Your task to perform on an android device: toggle translation in the chrome app Image 0: 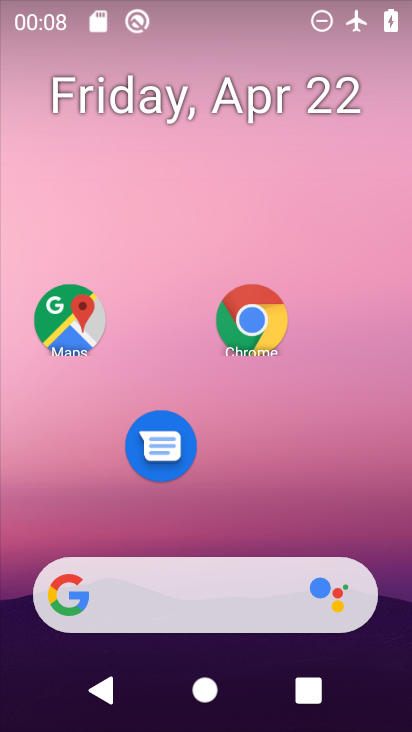
Step 0: drag from (217, 436) to (198, 182)
Your task to perform on an android device: toggle translation in the chrome app Image 1: 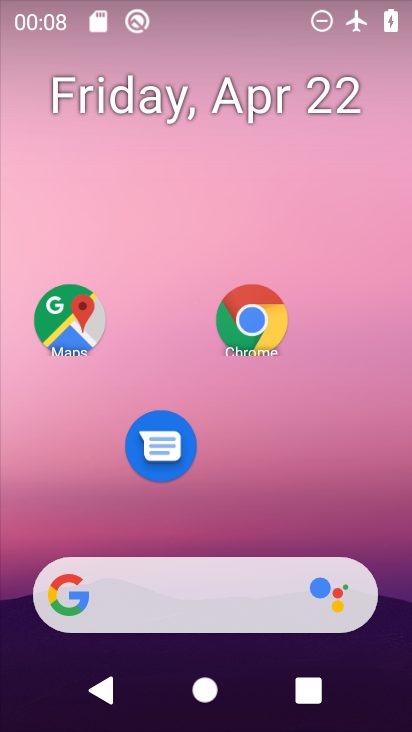
Step 1: drag from (213, 493) to (210, 153)
Your task to perform on an android device: toggle translation in the chrome app Image 2: 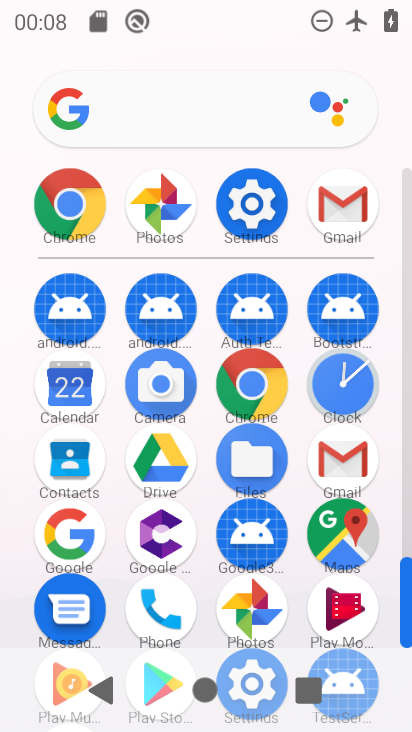
Step 2: drag from (202, 633) to (194, 354)
Your task to perform on an android device: toggle translation in the chrome app Image 3: 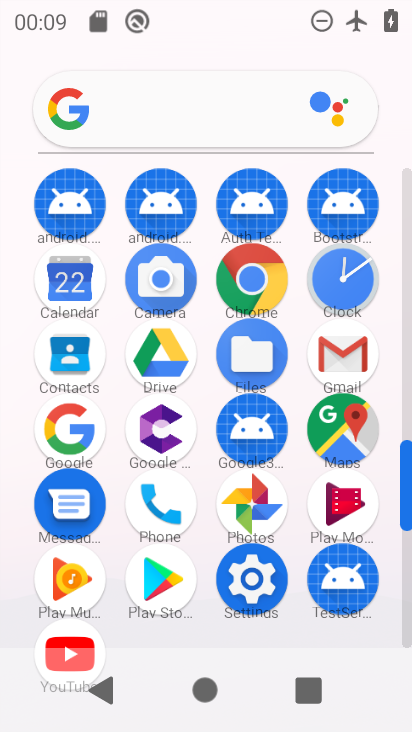
Step 3: click (243, 282)
Your task to perform on an android device: toggle translation in the chrome app Image 4: 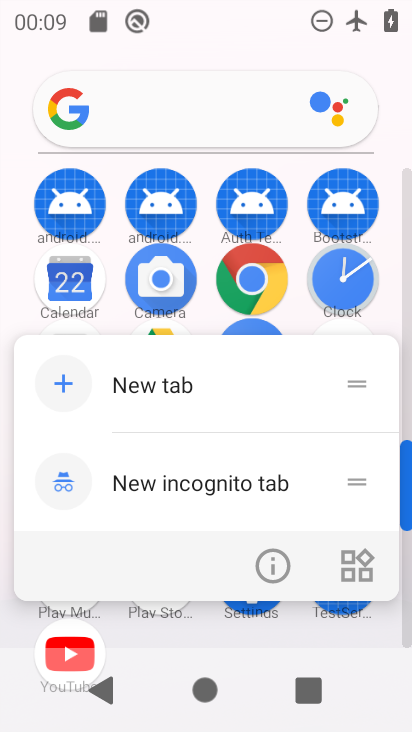
Step 4: click (276, 563)
Your task to perform on an android device: toggle translation in the chrome app Image 5: 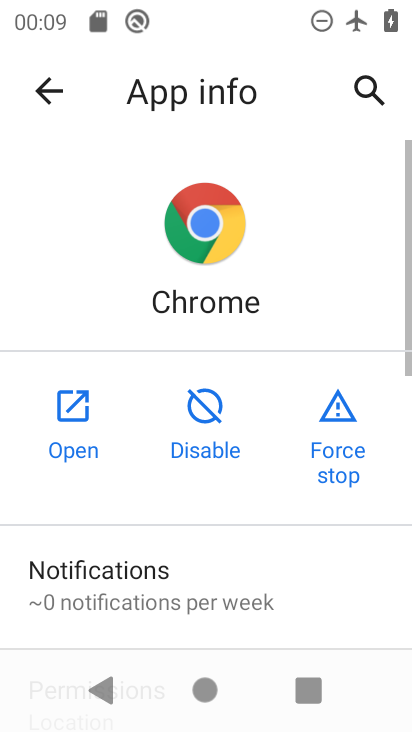
Step 5: click (68, 413)
Your task to perform on an android device: toggle translation in the chrome app Image 6: 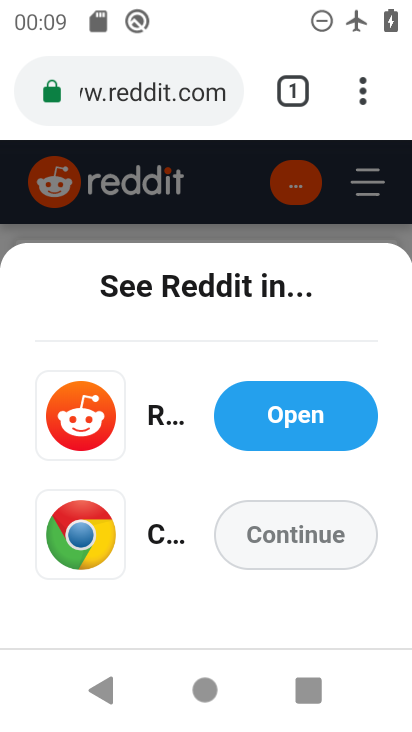
Step 6: drag from (352, 93) to (89, 473)
Your task to perform on an android device: toggle translation in the chrome app Image 7: 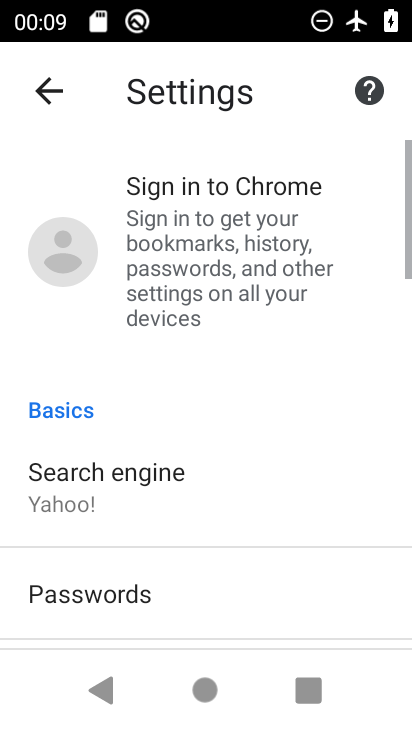
Step 7: drag from (187, 494) to (181, 6)
Your task to perform on an android device: toggle translation in the chrome app Image 8: 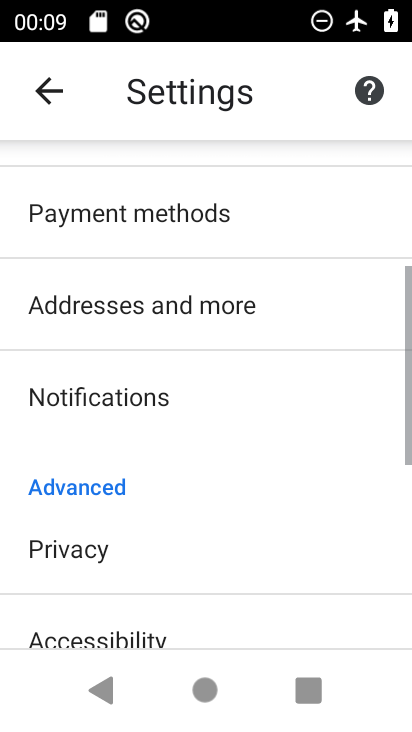
Step 8: drag from (224, 502) to (262, 167)
Your task to perform on an android device: toggle translation in the chrome app Image 9: 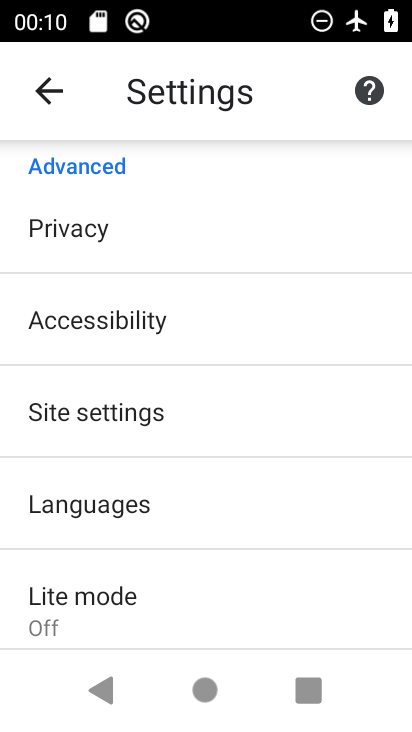
Step 9: click (162, 514)
Your task to perform on an android device: toggle translation in the chrome app Image 10: 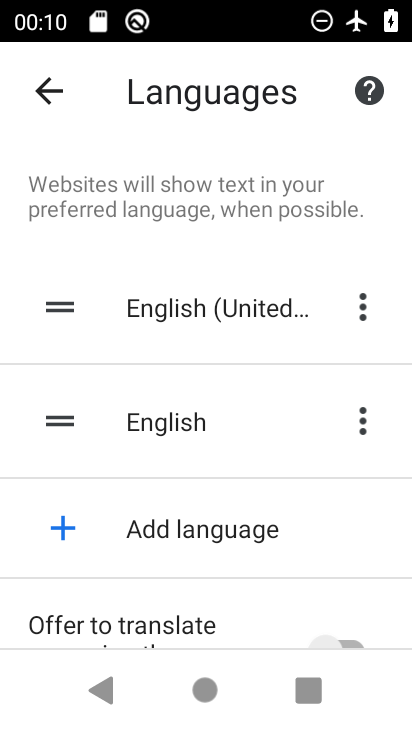
Step 10: drag from (176, 626) to (188, 401)
Your task to perform on an android device: toggle translation in the chrome app Image 11: 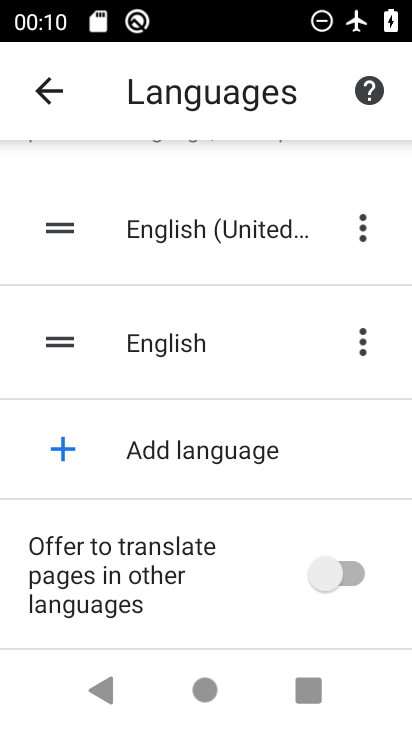
Step 11: click (254, 590)
Your task to perform on an android device: toggle translation in the chrome app Image 12: 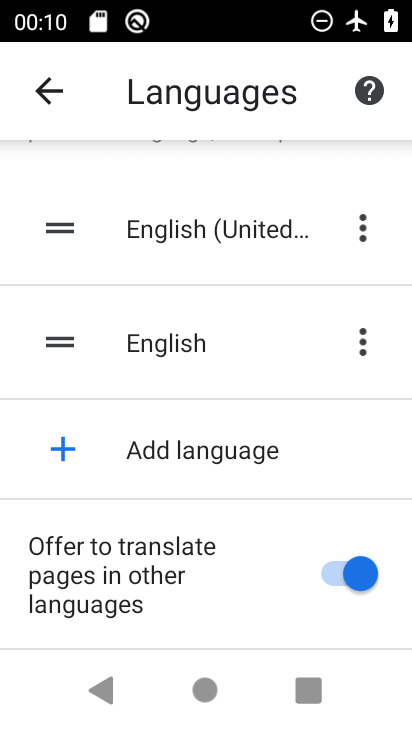
Step 12: task complete